Your task to perform on an android device: Open calendar and show me the third week of next month Image 0: 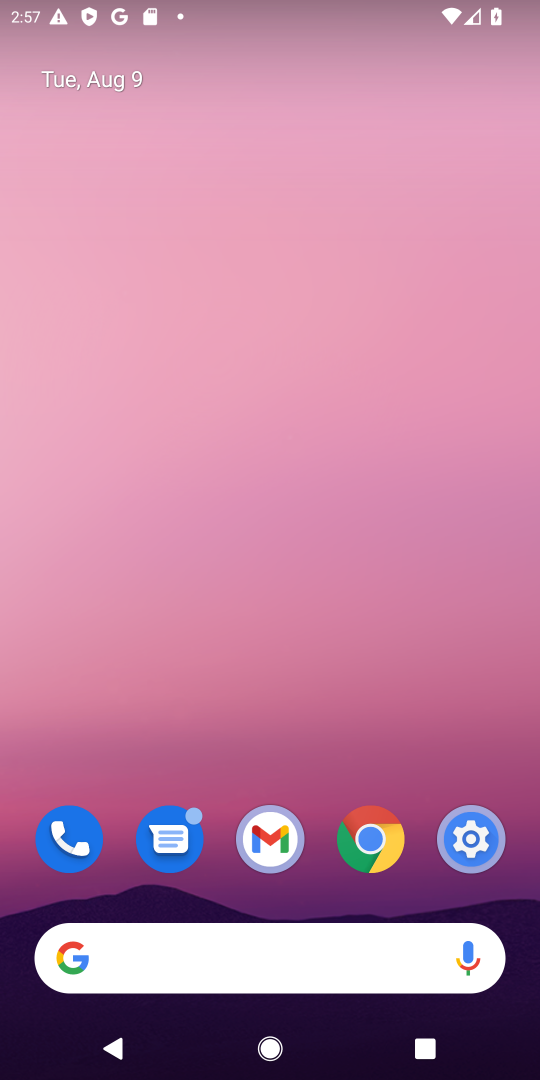
Step 0: press home button
Your task to perform on an android device: Open calendar and show me the third week of next month Image 1: 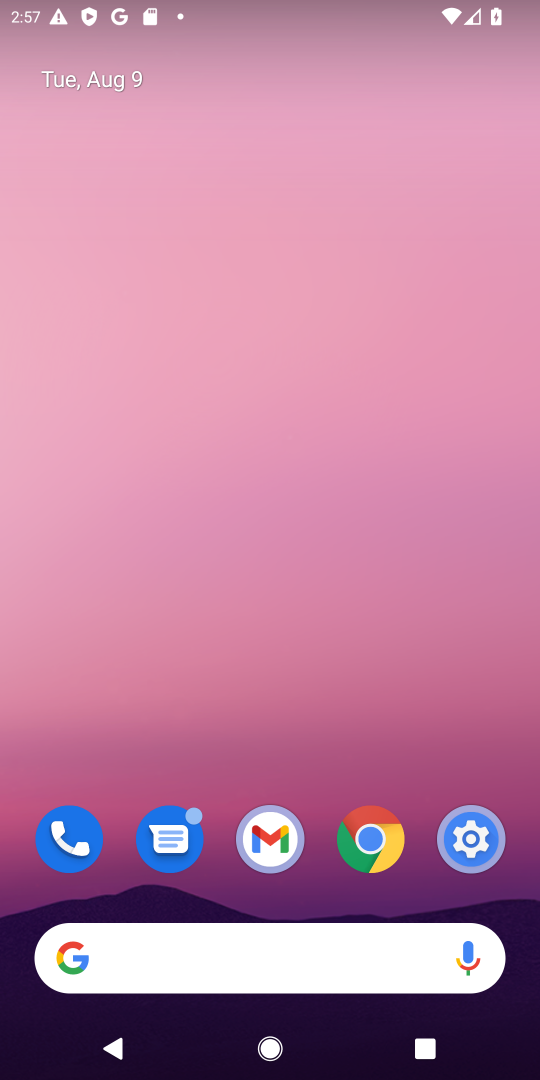
Step 1: drag from (291, 766) to (195, 122)
Your task to perform on an android device: Open calendar and show me the third week of next month Image 2: 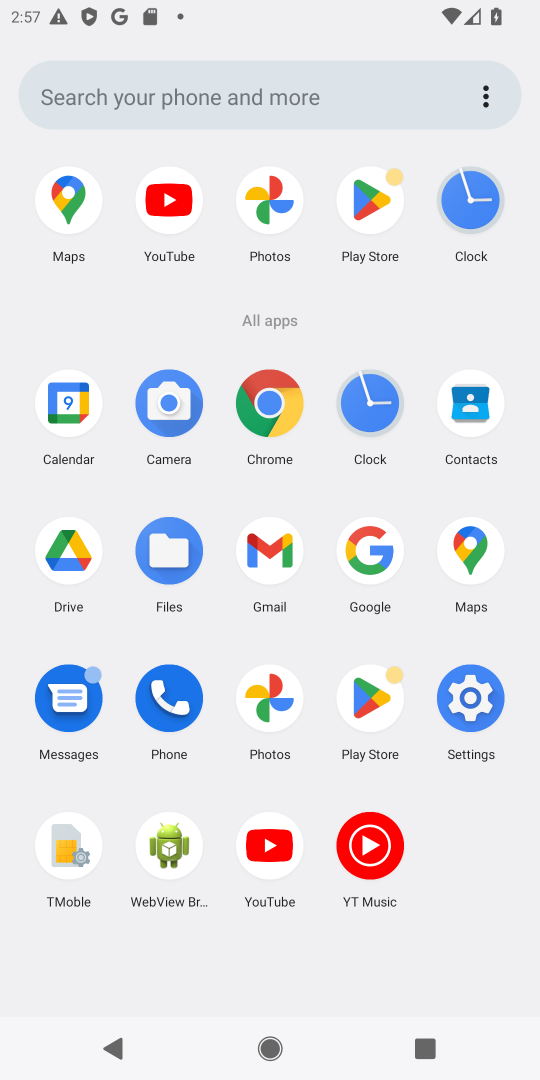
Step 2: click (58, 415)
Your task to perform on an android device: Open calendar and show me the third week of next month Image 3: 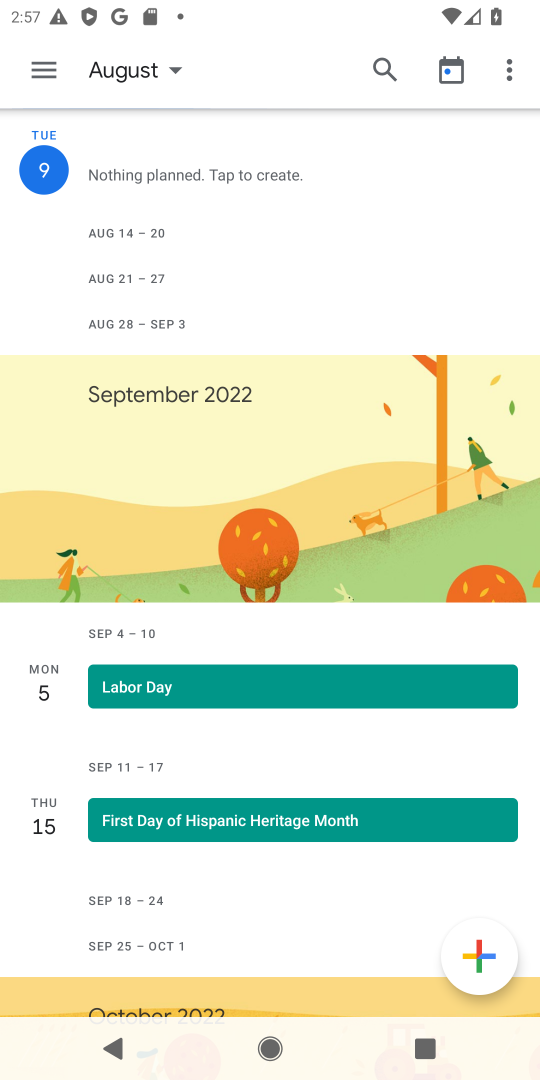
Step 3: click (38, 68)
Your task to perform on an android device: Open calendar and show me the third week of next month Image 4: 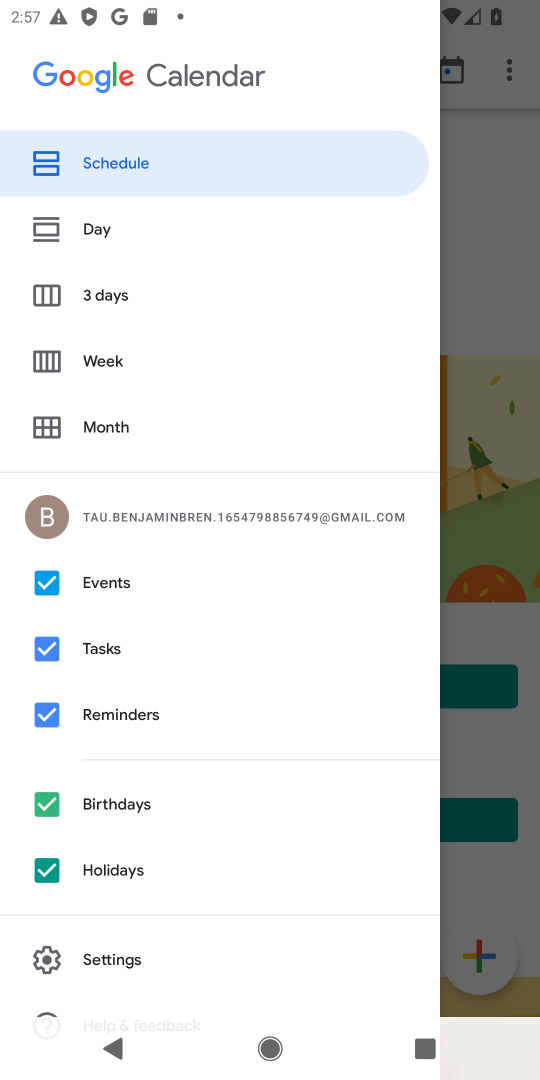
Step 4: click (115, 425)
Your task to perform on an android device: Open calendar and show me the third week of next month Image 5: 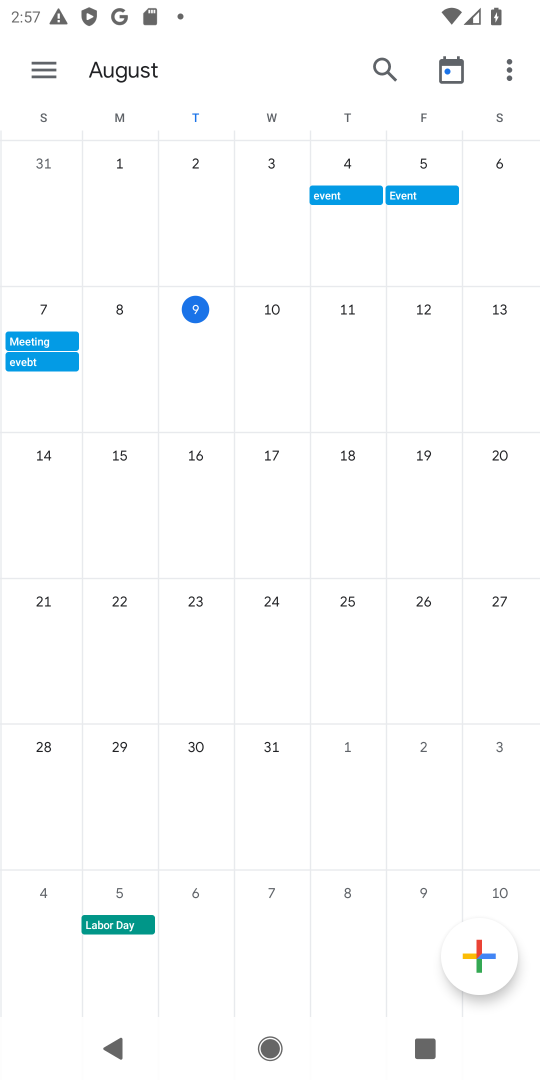
Step 5: task complete